Your task to perform on an android device: Set the phone to "Do not disturb". Image 0: 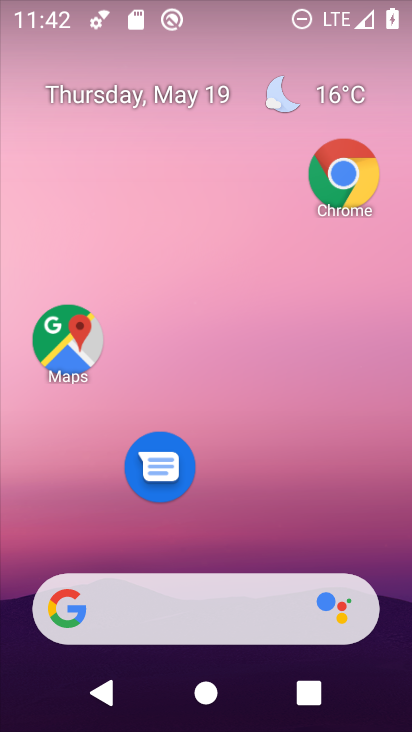
Step 0: drag from (191, 195) to (192, 399)
Your task to perform on an android device: Set the phone to "Do not disturb". Image 1: 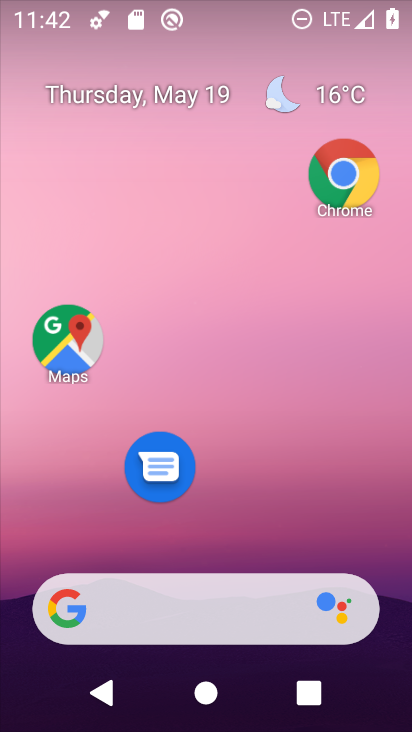
Step 1: drag from (188, 0) to (154, 323)
Your task to perform on an android device: Set the phone to "Do not disturb". Image 2: 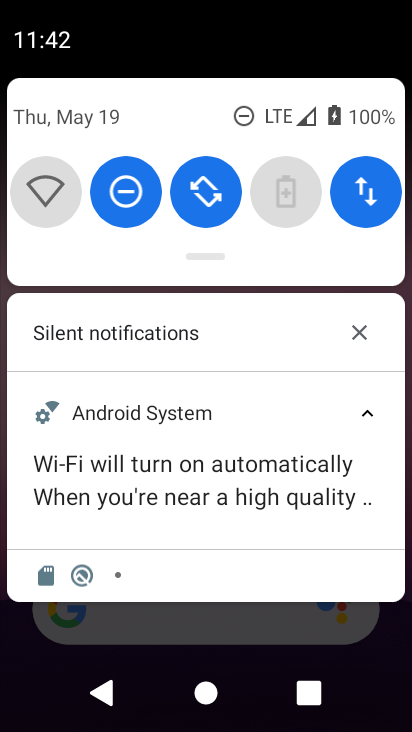
Step 2: click (126, 179)
Your task to perform on an android device: Set the phone to "Do not disturb". Image 3: 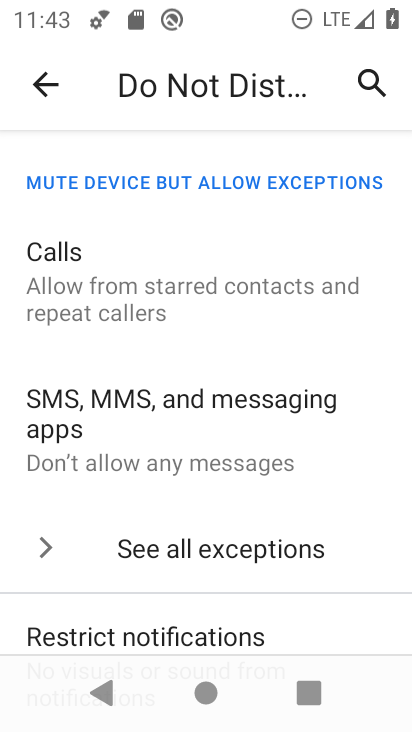
Step 3: task complete